Your task to perform on an android device: Show me the alarms in the clock app Image 0: 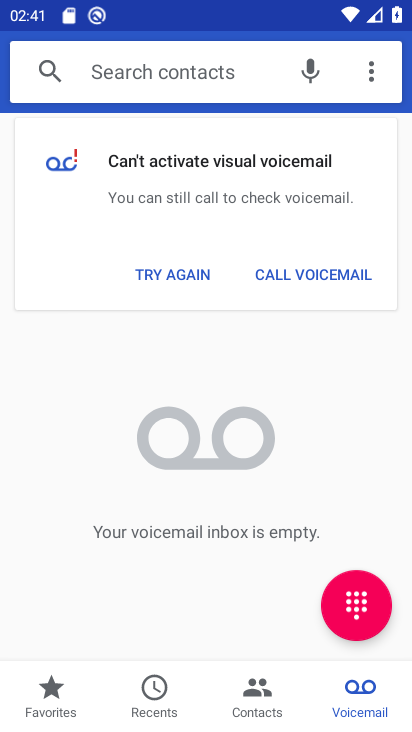
Step 0: press home button
Your task to perform on an android device: Show me the alarms in the clock app Image 1: 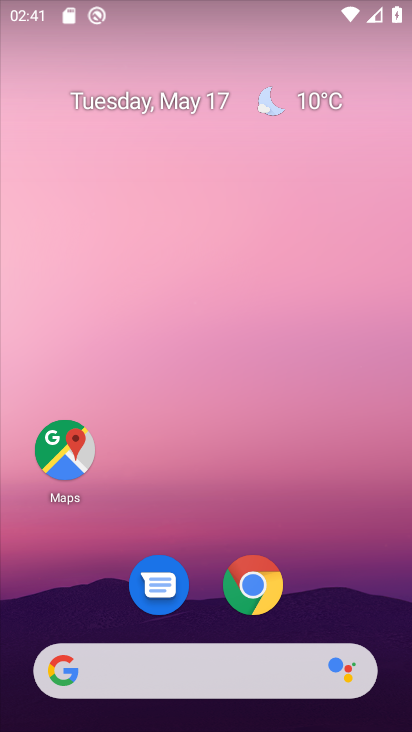
Step 1: drag from (261, 458) to (254, 30)
Your task to perform on an android device: Show me the alarms in the clock app Image 2: 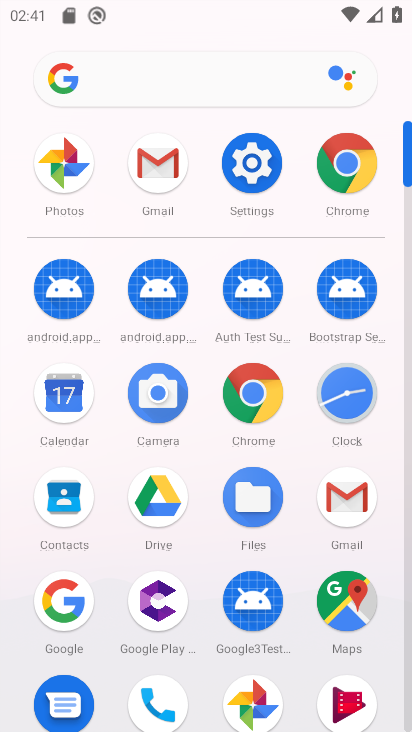
Step 2: click (356, 403)
Your task to perform on an android device: Show me the alarms in the clock app Image 3: 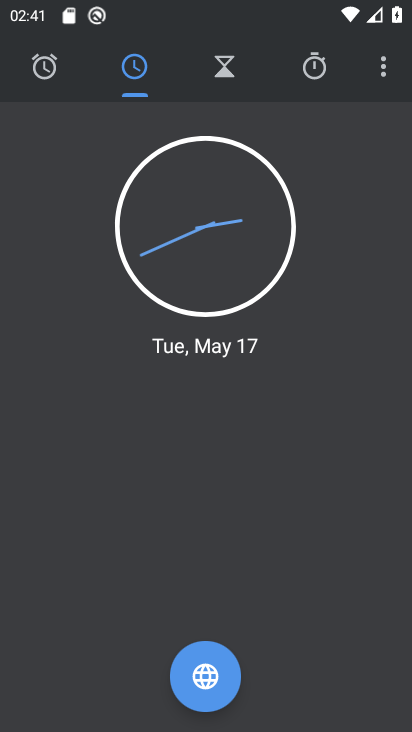
Step 3: click (48, 67)
Your task to perform on an android device: Show me the alarms in the clock app Image 4: 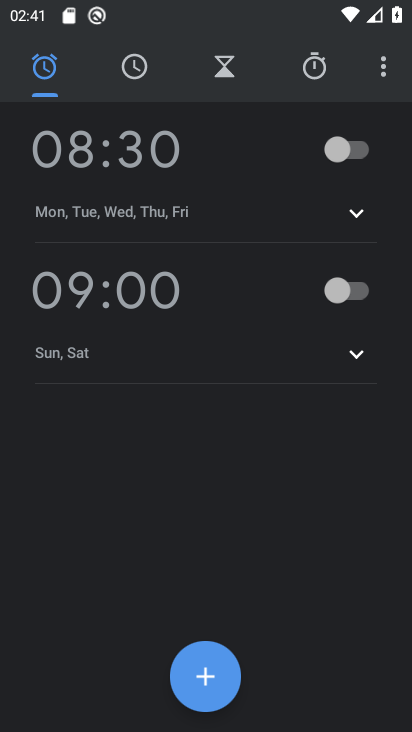
Step 4: task complete